Your task to perform on an android device: Go to calendar. Show me events next week Image 0: 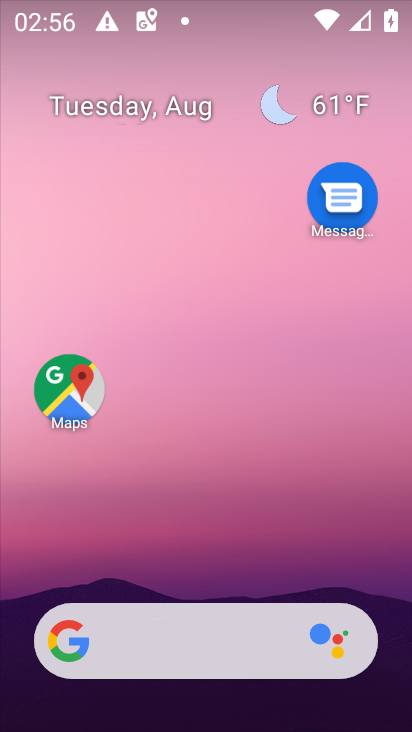
Step 0: drag from (217, 592) to (223, 174)
Your task to perform on an android device: Go to calendar. Show me events next week Image 1: 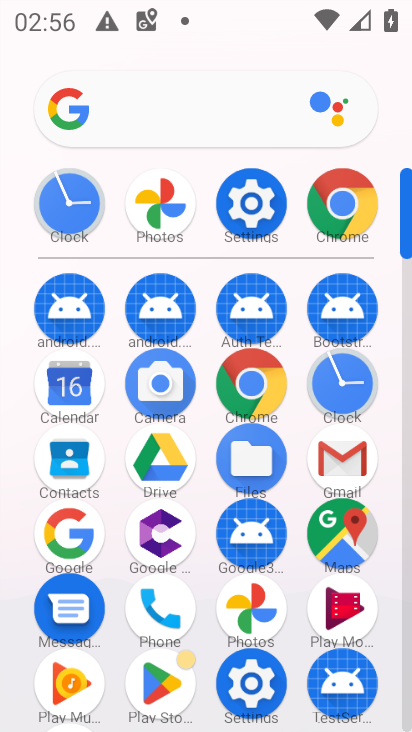
Step 1: click (73, 399)
Your task to perform on an android device: Go to calendar. Show me events next week Image 2: 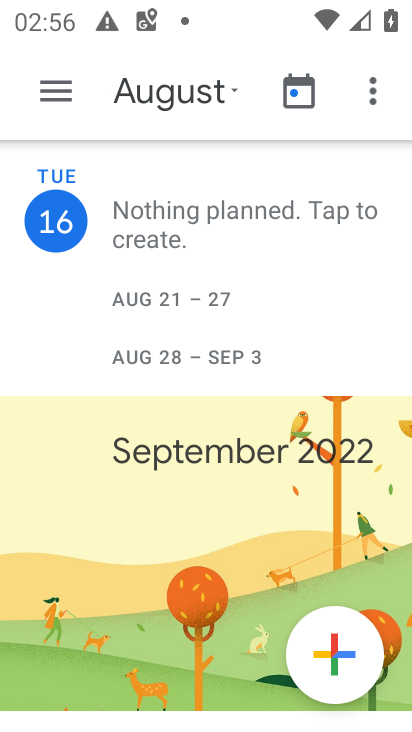
Step 2: click (296, 76)
Your task to perform on an android device: Go to calendar. Show me events next week Image 3: 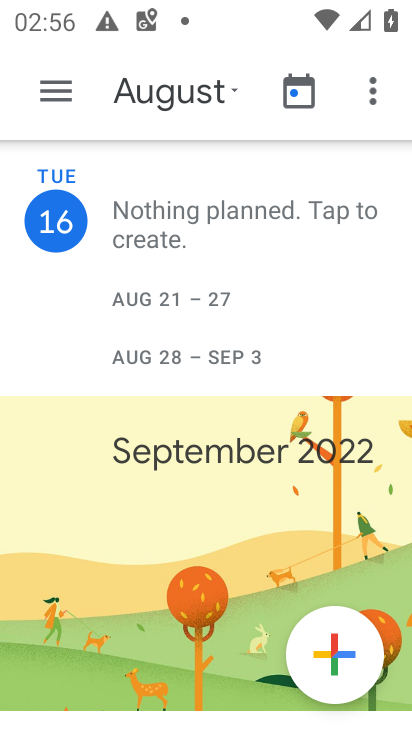
Step 3: click (45, 94)
Your task to perform on an android device: Go to calendar. Show me events next week Image 4: 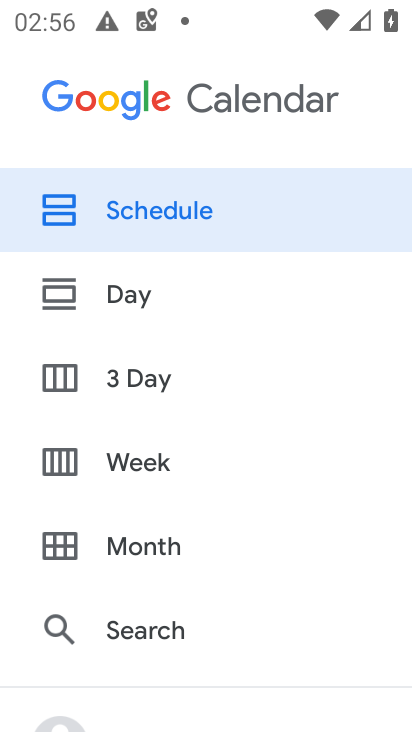
Step 4: click (124, 459)
Your task to perform on an android device: Go to calendar. Show me events next week Image 5: 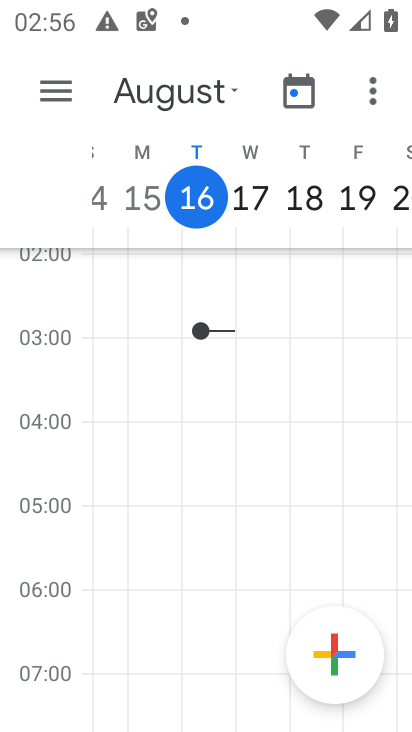
Step 5: task complete